Your task to perform on an android device: check android version Image 0: 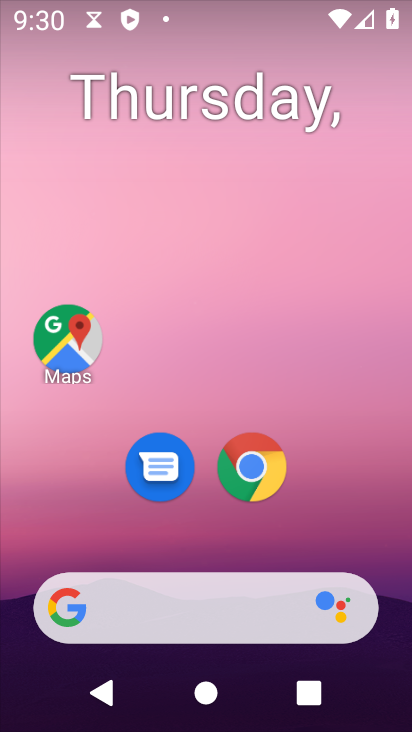
Step 0: drag from (308, 552) to (336, 44)
Your task to perform on an android device: check android version Image 1: 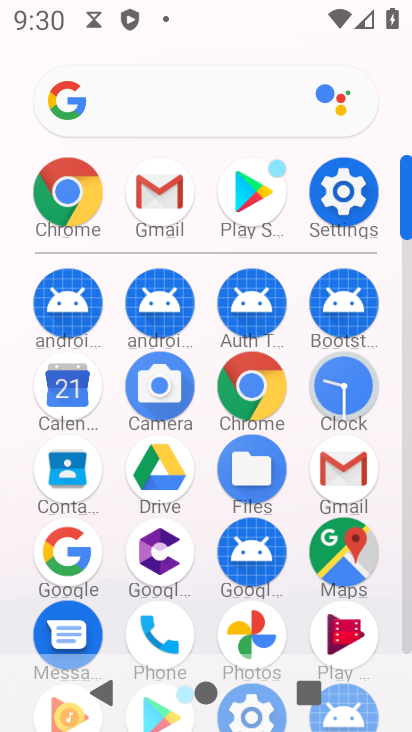
Step 1: click (341, 193)
Your task to perform on an android device: check android version Image 2: 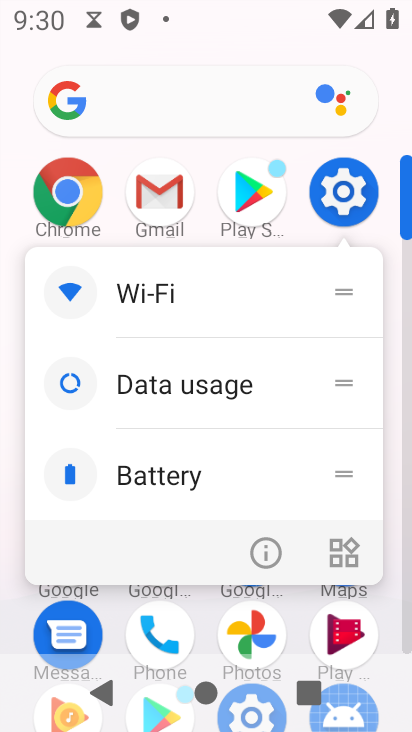
Step 2: click (341, 193)
Your task to perform on an android device: check android version Image 3: 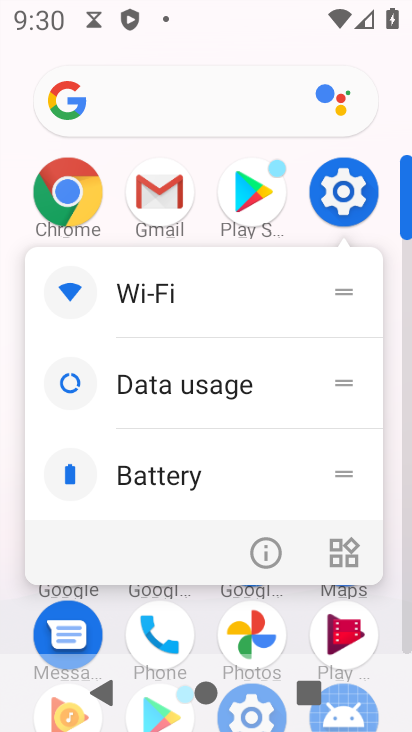
Step 3: click (341, 193)
Your task to perform on an android device: check android version Image 4: 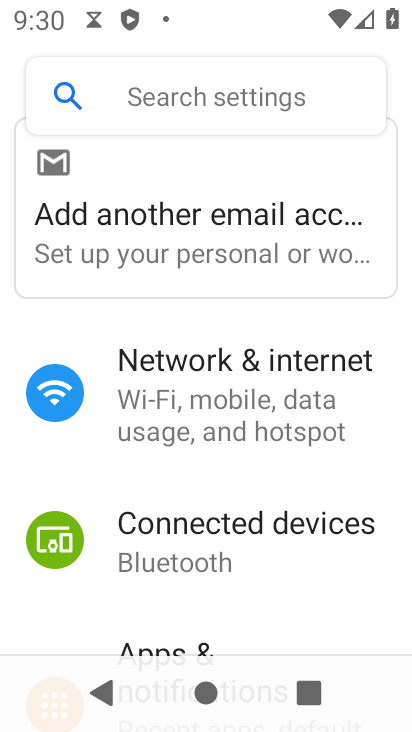
Step 4: drag from (182, 493) to (168, 395)
Your task to perform on an android device: check android version Image 5: 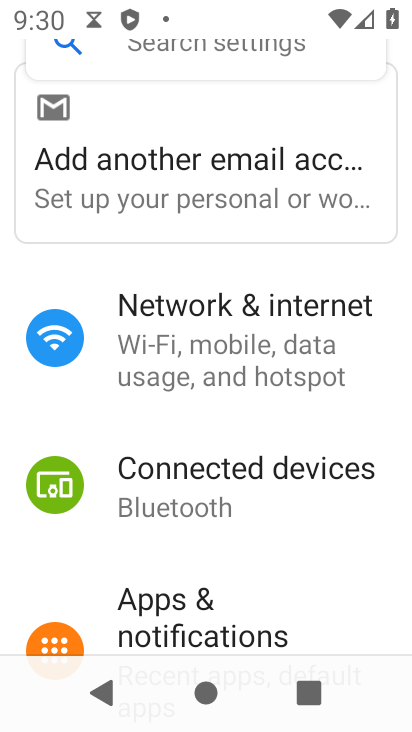
Step 5: drag from (177, 496) to (158, 384)
Your task to perform on an android device: check android version Image 6: 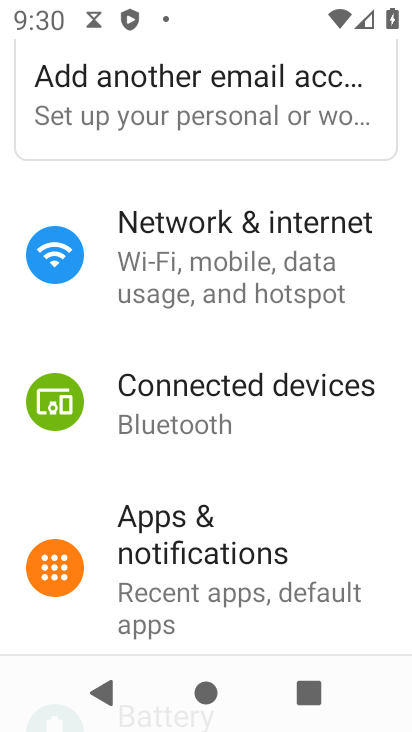
Step 6: drag from (175, 512) to (167, 394)
Your task to perform on an android device: check android version Image 7: 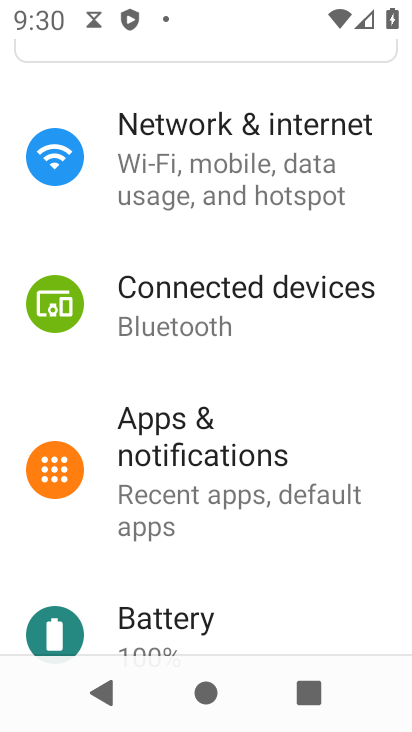
Step 7: drag from (166, 519) to (162, 396)
Your task to perform on an android device: check android version Image 8: 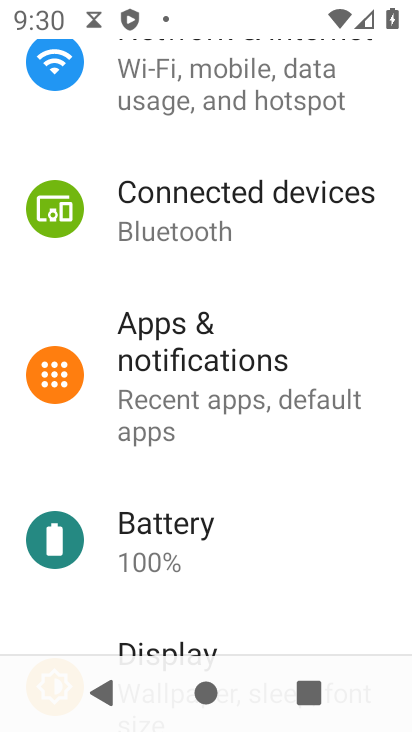
Step 8: drag from (159, 512) to (155, 404)
Your task to perform on an android device: check android version Image 9: 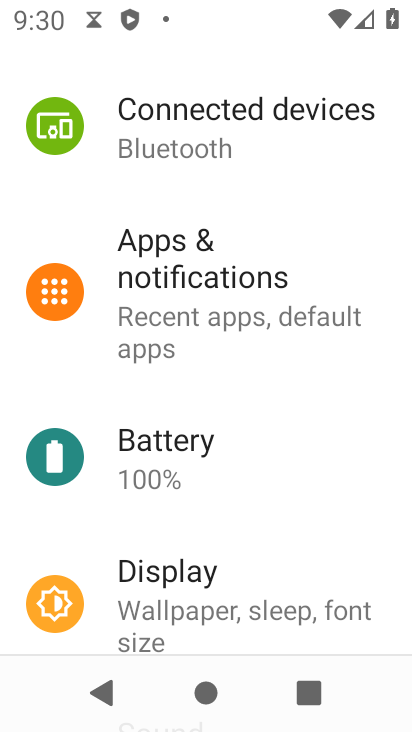
Step 9: drag from (152, 536) to (140, 415)
Your task to perform on an android device: check android version Image 10: 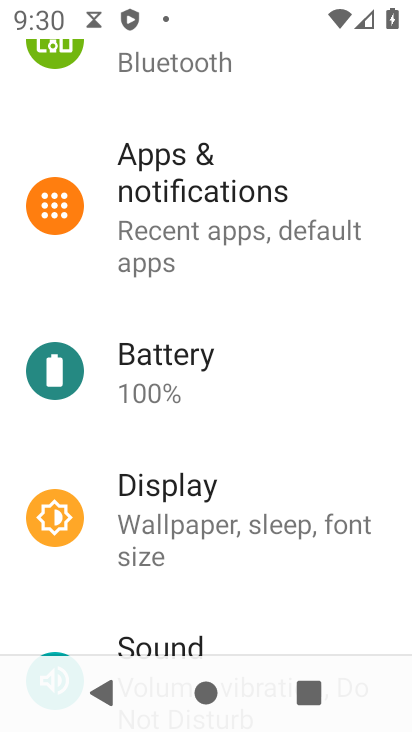
Step 10: drag from (139, 545) to (136, 426)
Your task to perform on an android device: check android version Image 11: 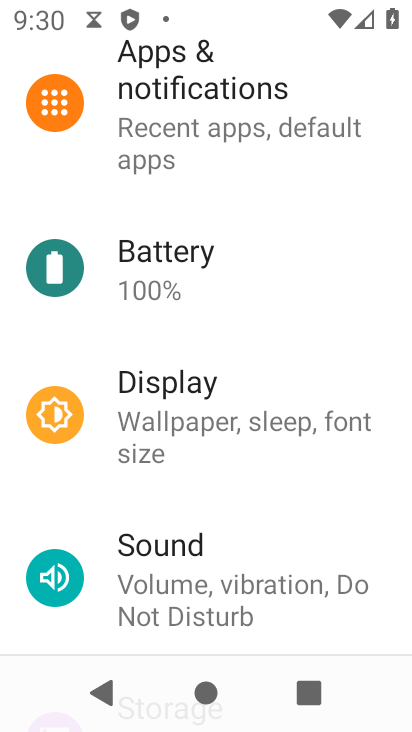
Step 11: drag from (142, 553) to (137, 453)
Your task to perform on an android device: check android version Image 12: 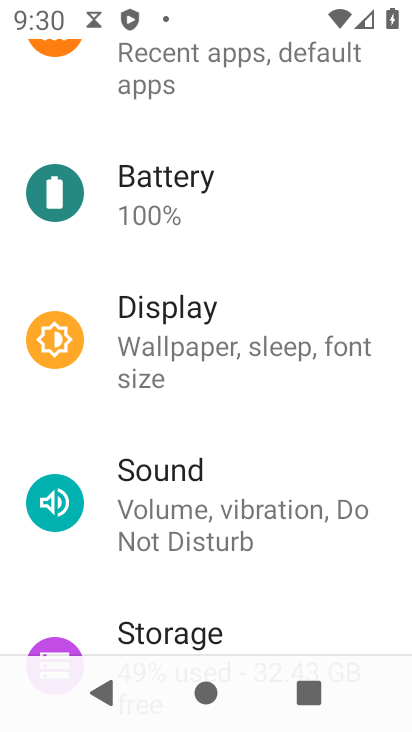
Step 12: drag from (143, 531) to (140, 438)
Your task to perform on an android device: check android version Image 13: 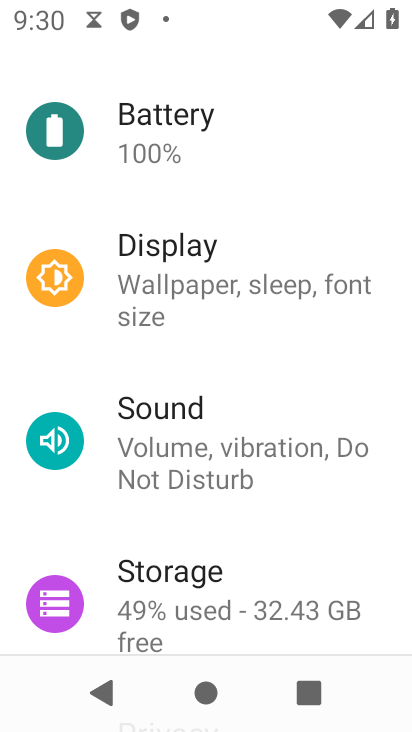
Step 13: drag from (135, 584) to (127, 481)
Your task to perform on an android device: check android version Image 14: 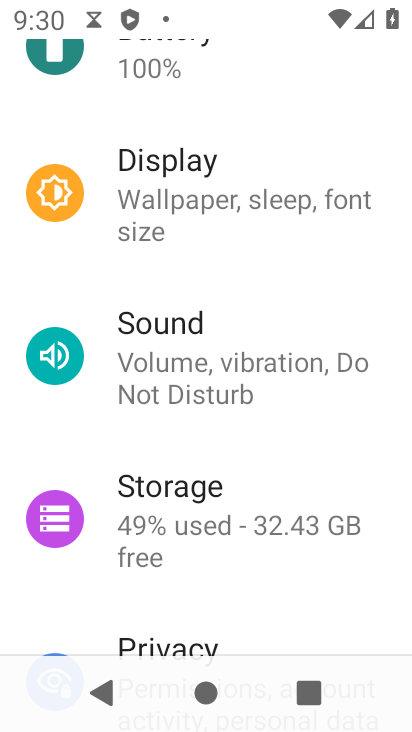
Step 14: drag from (123, 552) to (127, 447)
Your task to perform on an android device: check android version Image 15: 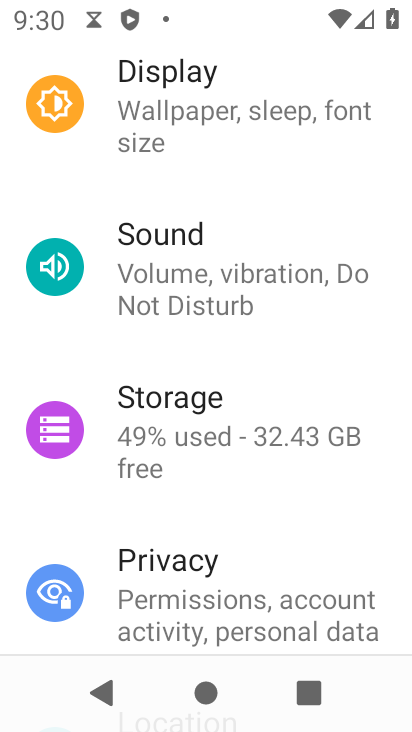
Step 15: drag from (147, 557) to (144, 422)
Your task to perform on an android device: check android version Image 16: 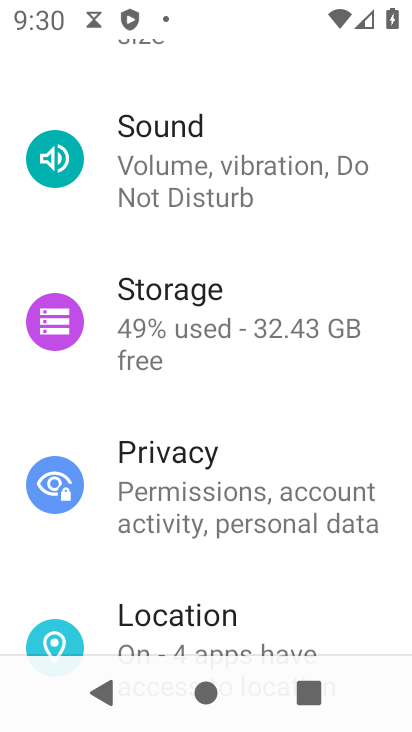
Step 16: drag from (150, 551) to (138, 441)
Your task to perform on an android device: check android version Image 17: 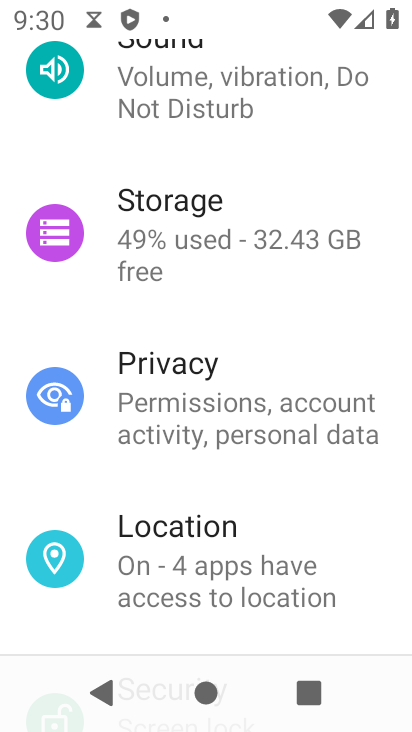
Step 17: drag from (265, 551) to (292, 458)
Your task to perform on an android device: check android version Image 18: 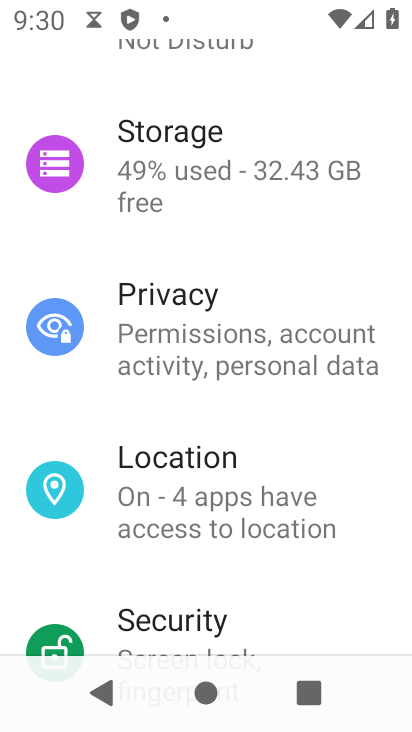
Step 18: drag from (292, 524) to (318, 447)
Your task to perform on an android device: check android version Image 19: 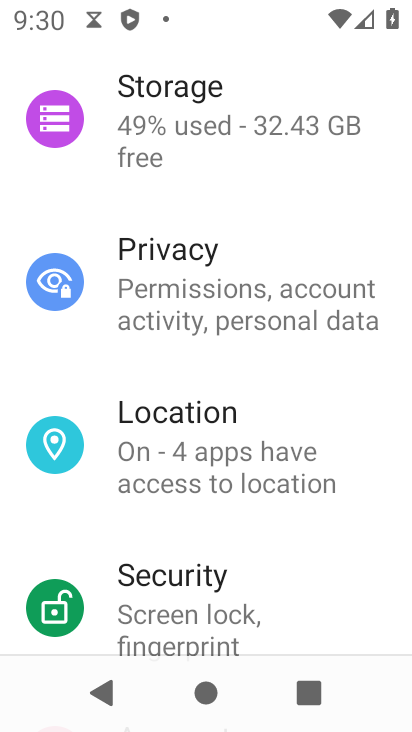
Step 19: drag from (307, 546) to (321, 445)
Your task to perform on an android device: check android version Image 20: 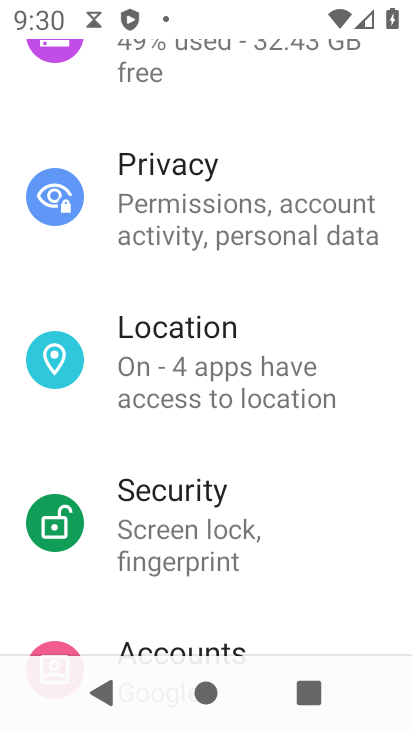
Step 20: drag from (292, 552) to (303, 496)
Your task to perform on an android device: check android version Image 21: 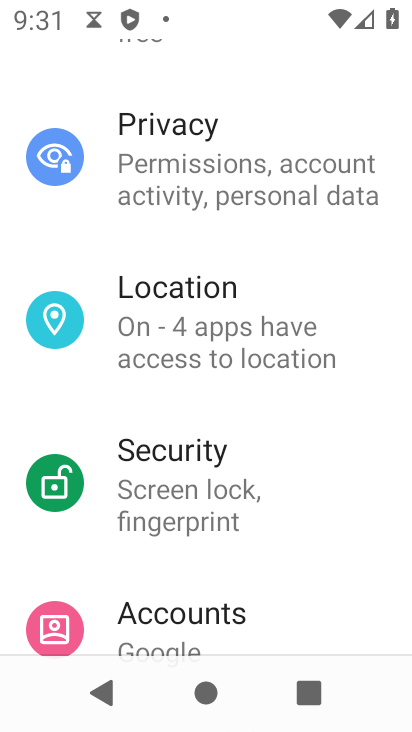
Step 21: drag from (276, 565) to (287, 486)
Your task to perform on an android device: check android version Image 22: 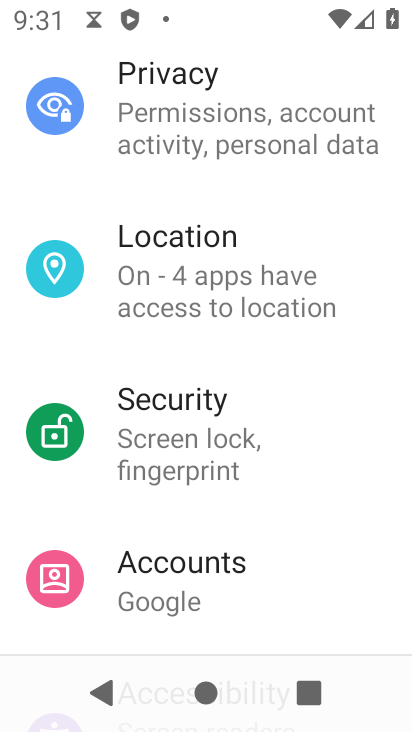
Step 22: drag from (254, 571) to (277, 495)
Your task to perform on an android device: check android version Image 23: 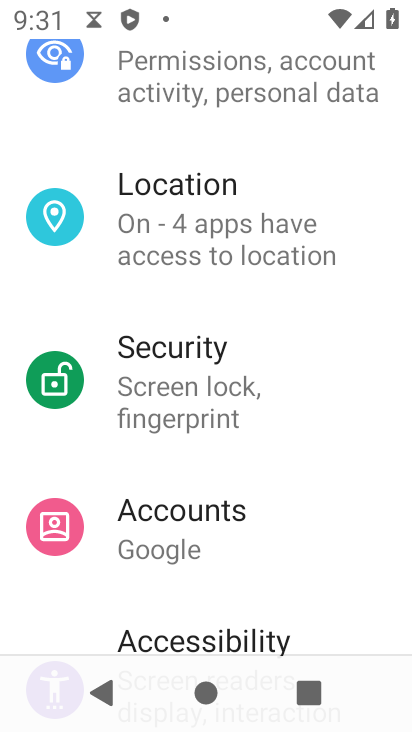
Step 23: drag from (258, 574) to (275, 492)
Your task to perform on an android device: check android version Image 24: 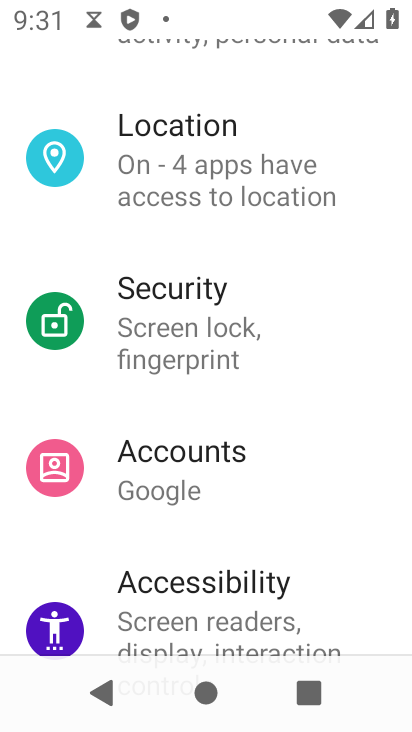
Step 24: drag from (262, 577) to (275, 513)
Your task to perform on an android device: check android version Image 25: 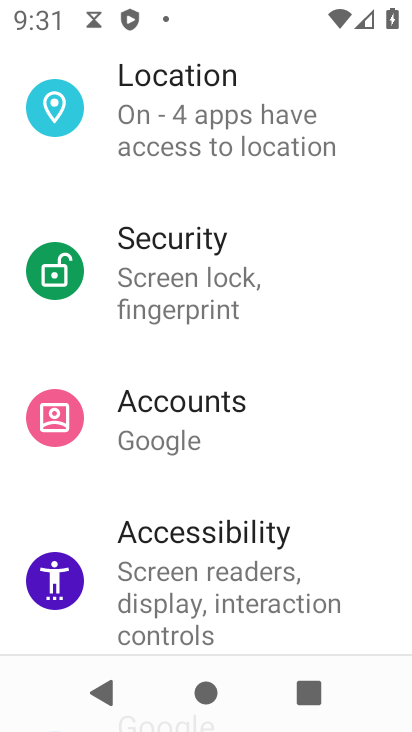
Step 25: drag from (251, 588) to (260, 499)
Your task to perform on an android device: check android version Image 26: 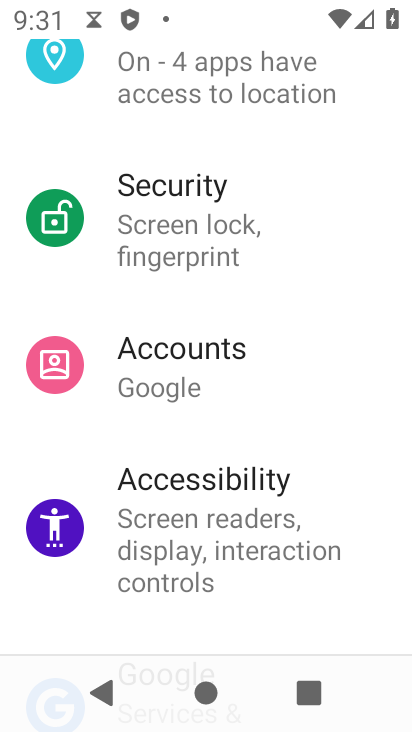
Step 26: drag from (260, 586) to (260, 503)
Your task to perform on an android device: check android version Image 27: 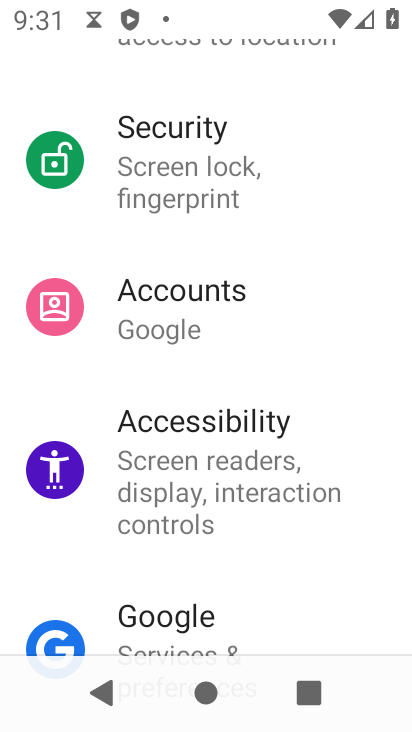
Step 27: drag from (261, 579) to (264, 451)
Your task to perform on an android device: check android version Image 28: 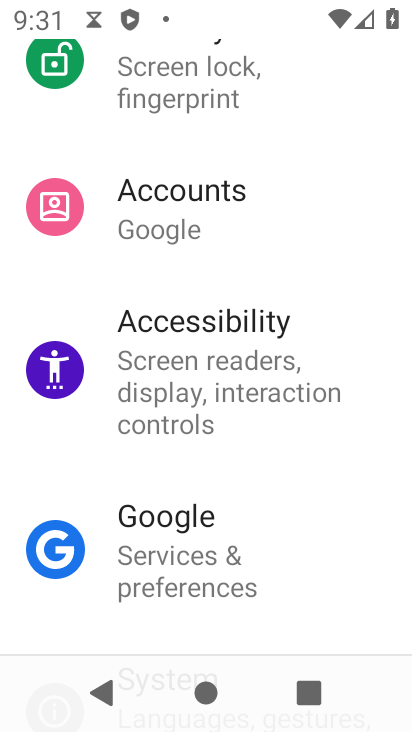
Step 28: drag from (231, 590) to (232, 492)
Your task to perform on an android device: check android version Image 29: 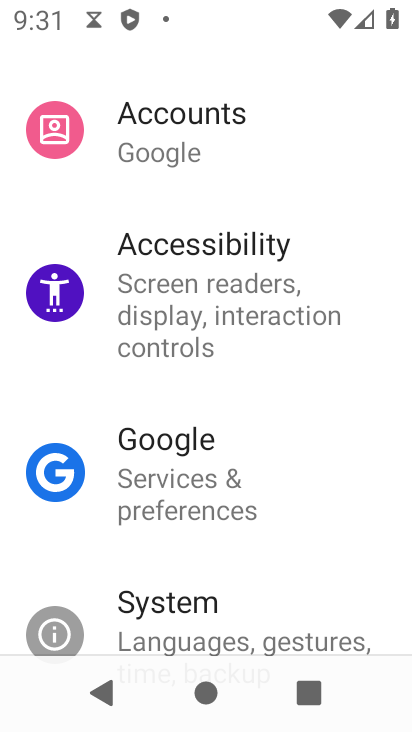
Step 29: drag from (217, 590) to (217, 518)
Your task to perform on an android device: check android version Image 30: 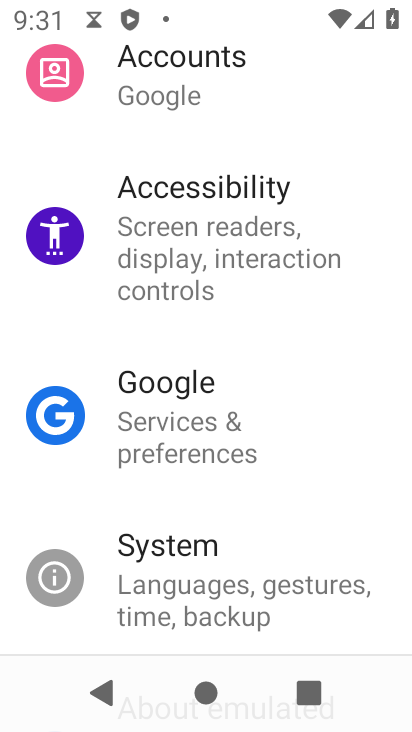
Step 30: drag from (211, 571) to (220, 459)
Your task to perform on an android device: check android version Image 31: 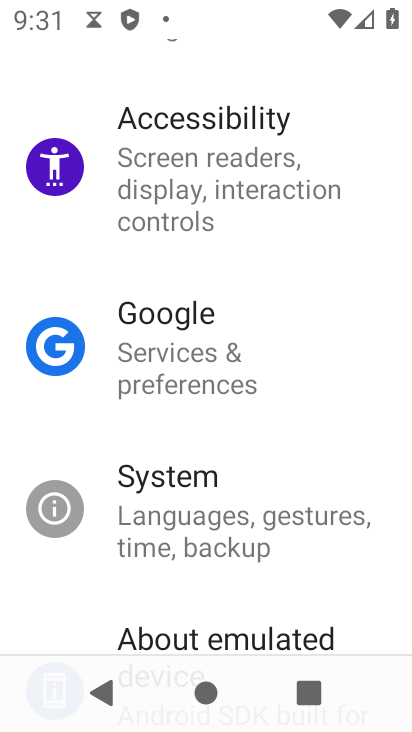
Step 31: drag from (132, 619) to (135, 411)
Your task to perform on an android device: check android version Image 32: 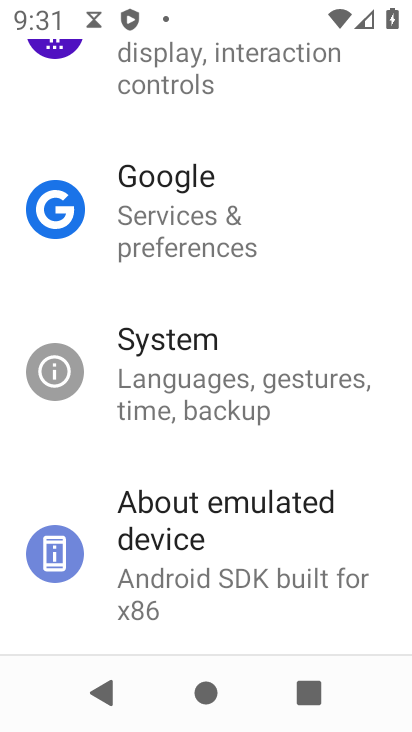
Step 32: click (140, 515)
Your task to perform on an android device: check android version Image 33: 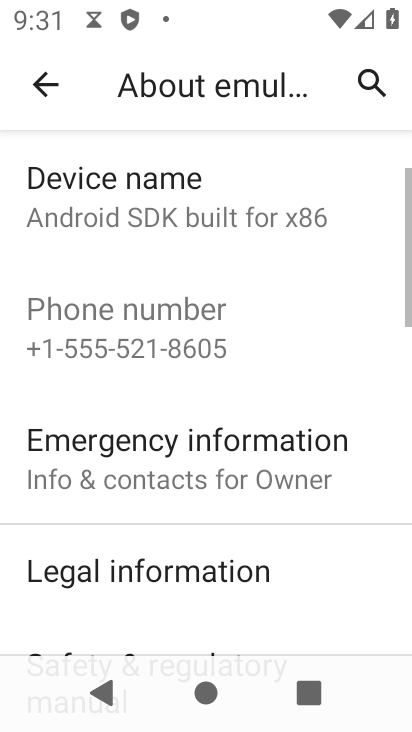
Step 33: drag from (156, 550) to (180, 374)
Your task to perform on an android device: check android version Image 34: 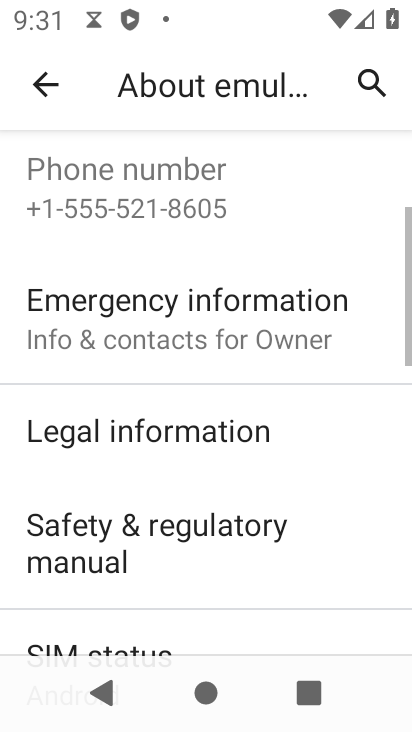
Step 34: drag from (191, 508) to (197, 343)
Your task to perform on an android device: check android version Image 35: 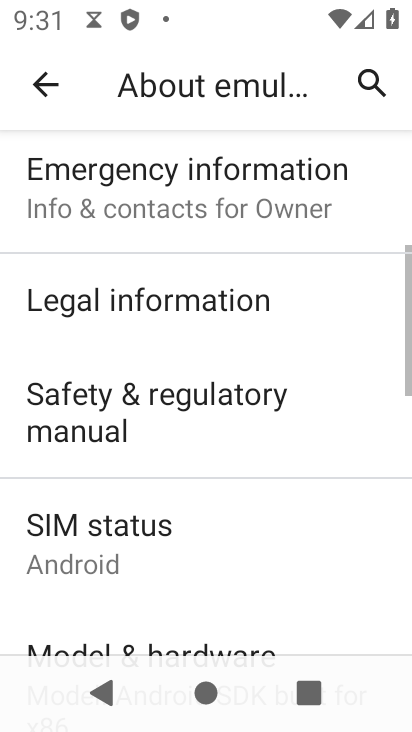
Step 35: drag from (203, 550) to (228, 376)
Your task to perform on an android device: check android version Image 36: 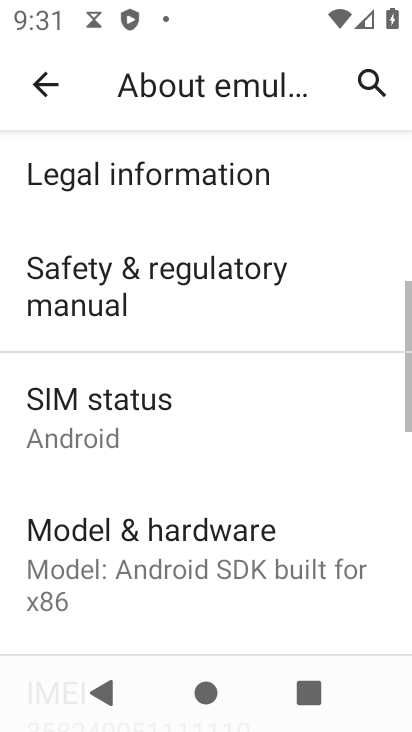
Step 36: drag from (228, 574) to (267, 421)
Your task to perform on an android device: check android version Image 37: 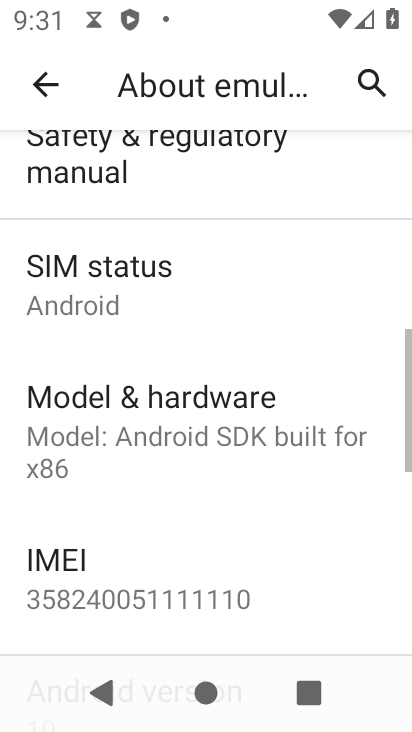
Step 37: drag from (229, 538) to (261, 350)
Your task to perform on an android device: check android version Image 38: 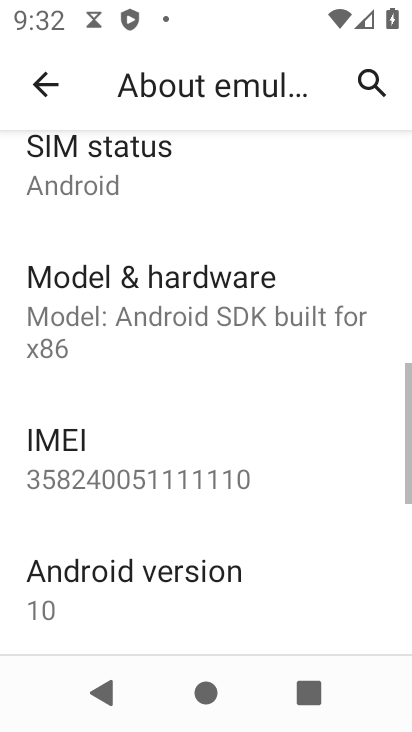
Step 38: click (190, 609)
Your task to perform on an android device: check android version Image 39: 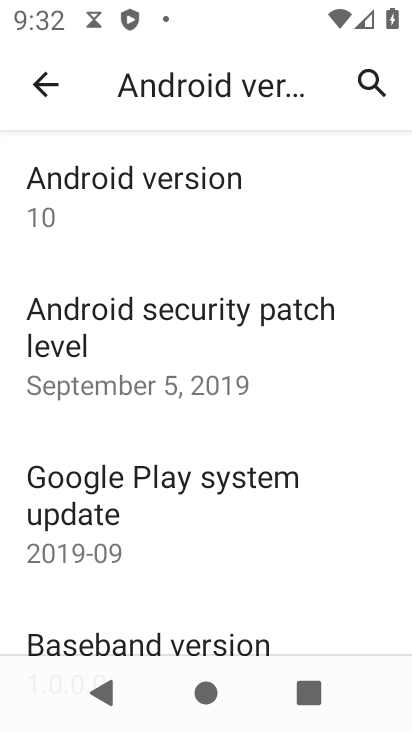
Step 39: task complete